Your task to perform on an android device: open app "Life360: Find Family & Friends" Image 0: 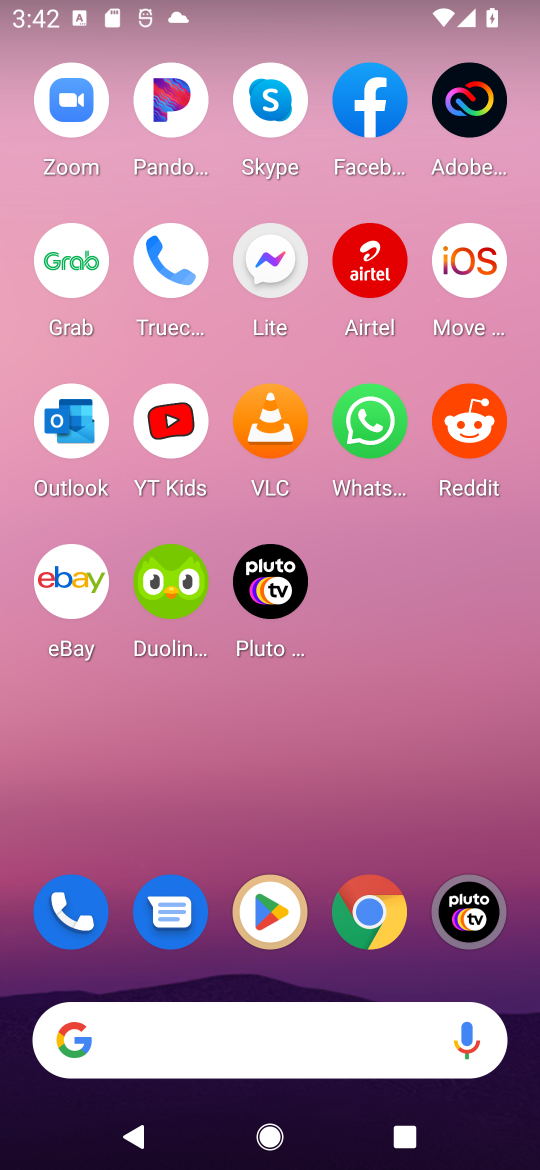
Step 0: press home button
Your task to perform on an android device: open app "Life360: Find Family & Friends" Image 1: 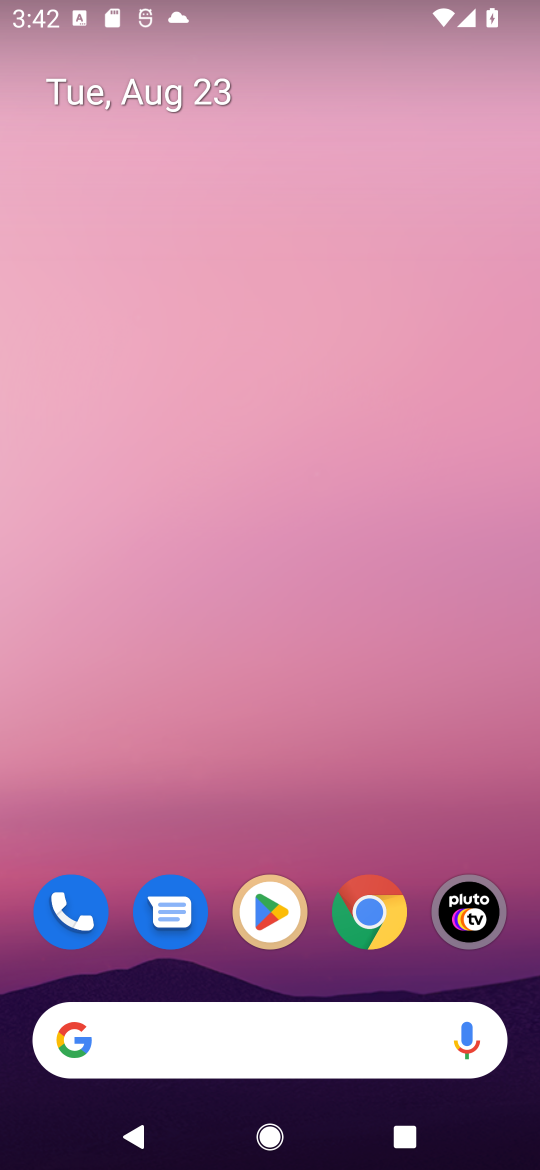
Step 1: drag from (217, 1010) to (271, 248)
Your task to perform on an android device: open app "Life360: Find Family & Friends" Image 2: 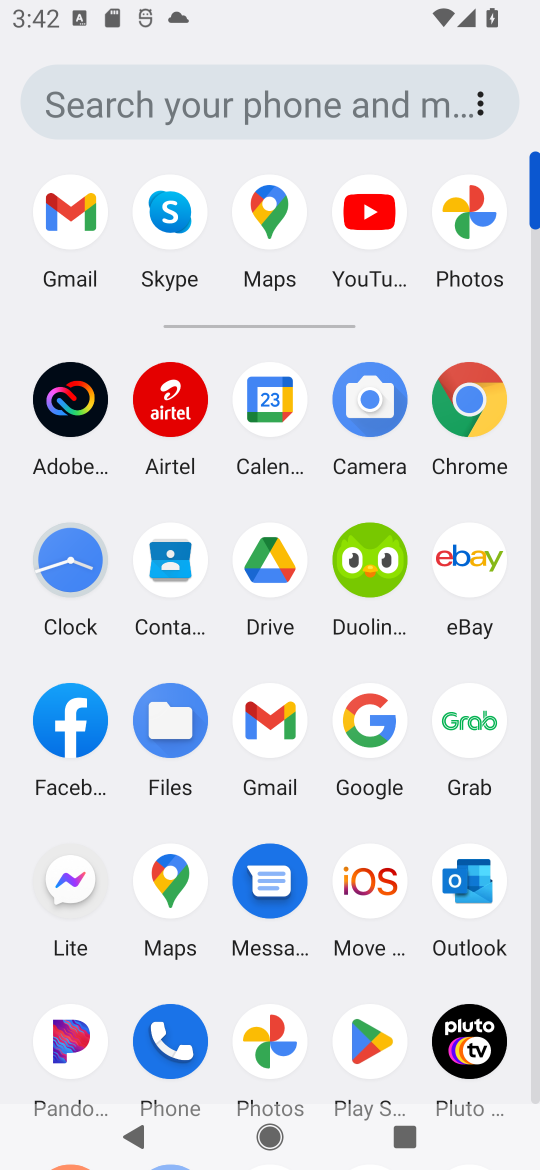
Step 2: click (370, 1041)
Your task to perform on an android device: open app "Life360: Find Family & Friends" Image 3: 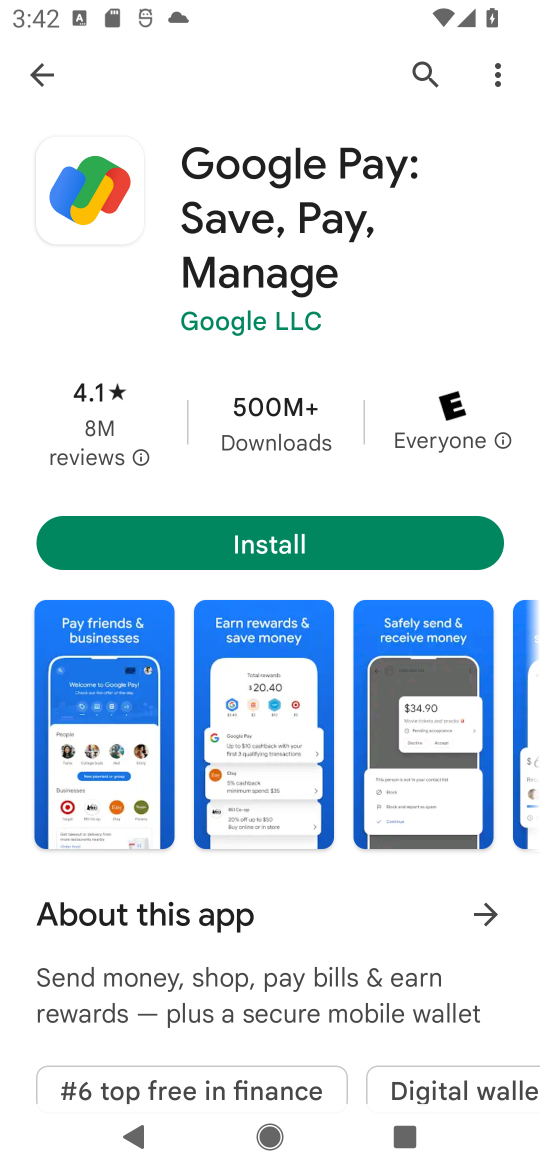
Step 3: press home button
Your task to perform on an android device: open app "Life360: Find Family & Friends" Image 4: 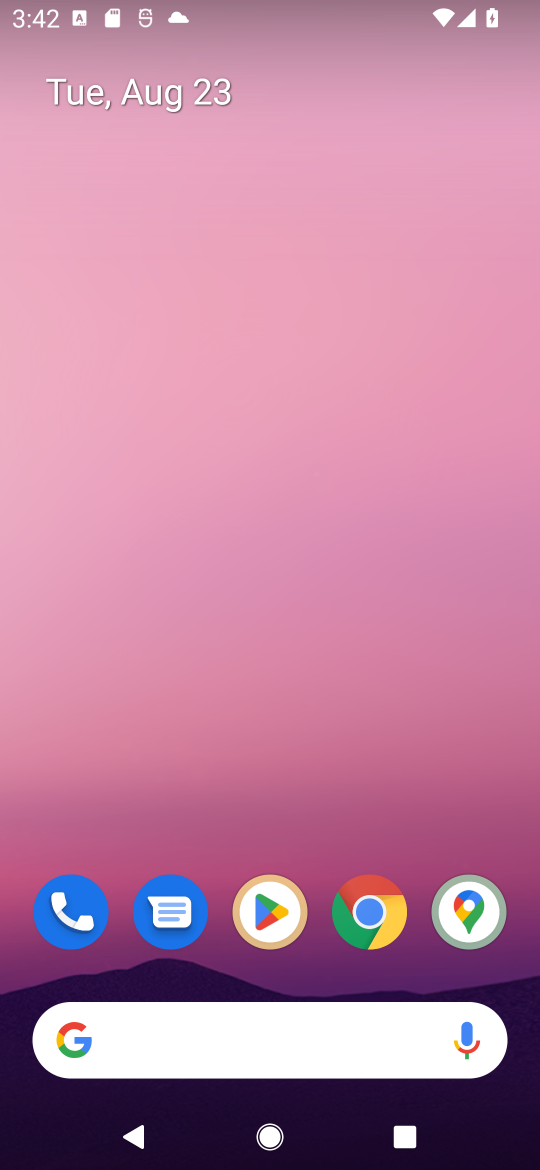
Step 4: drag from (251, 1003) to (343, 90)
Your task to perform on an android device: open app "Life360: Find Family & Friends" Image 5: 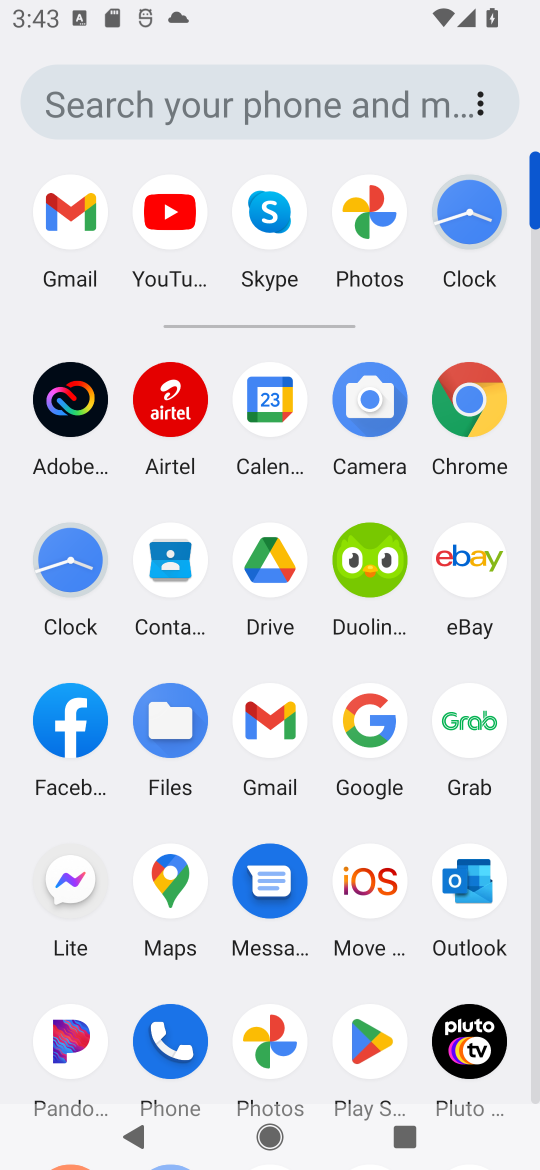
Step 5: click (363, 1038)
Your task to perform on an android device: open app "Life360: Find Family & Friends" Image 6: 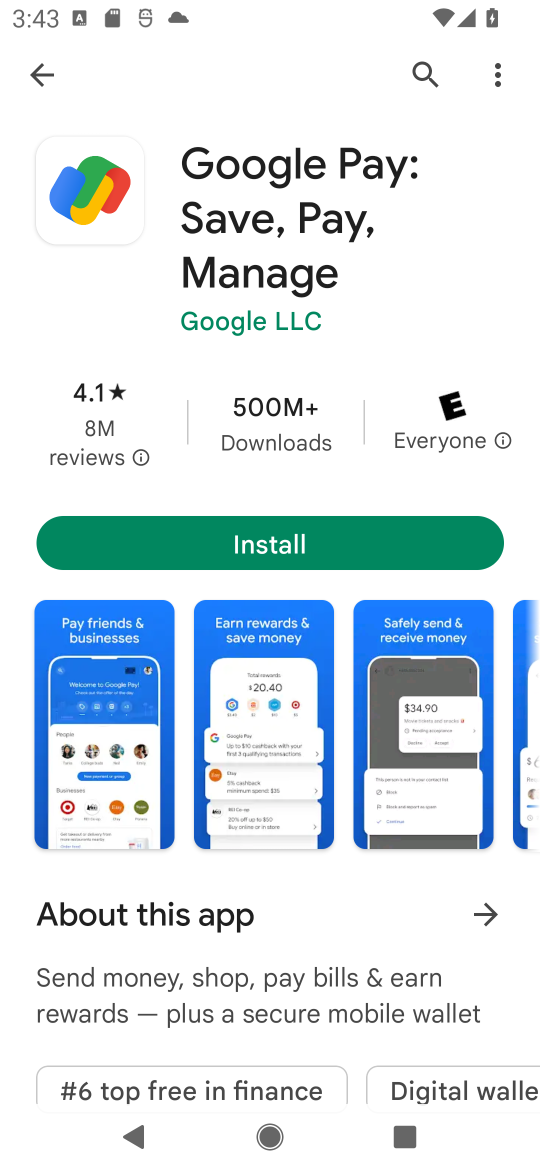
Step 6: press back button
Your task to perform on an android device: open app "Life360: Find Family & Friends" Image 7: 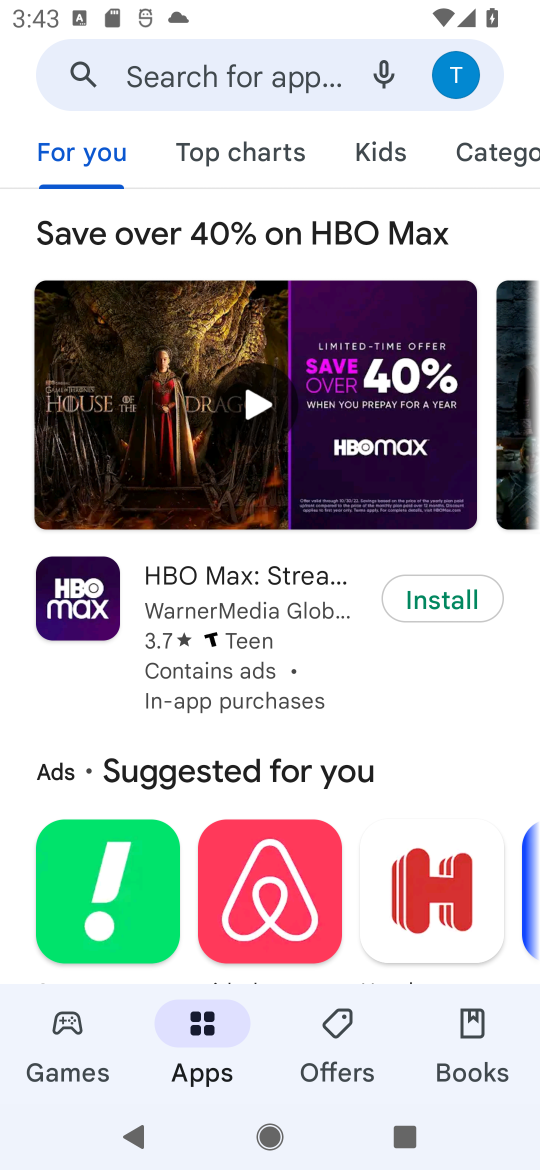
Step 7: click (181, 76)
Your task to perform on an android device: open app "Life360: Find Family & Friends" Image 8: 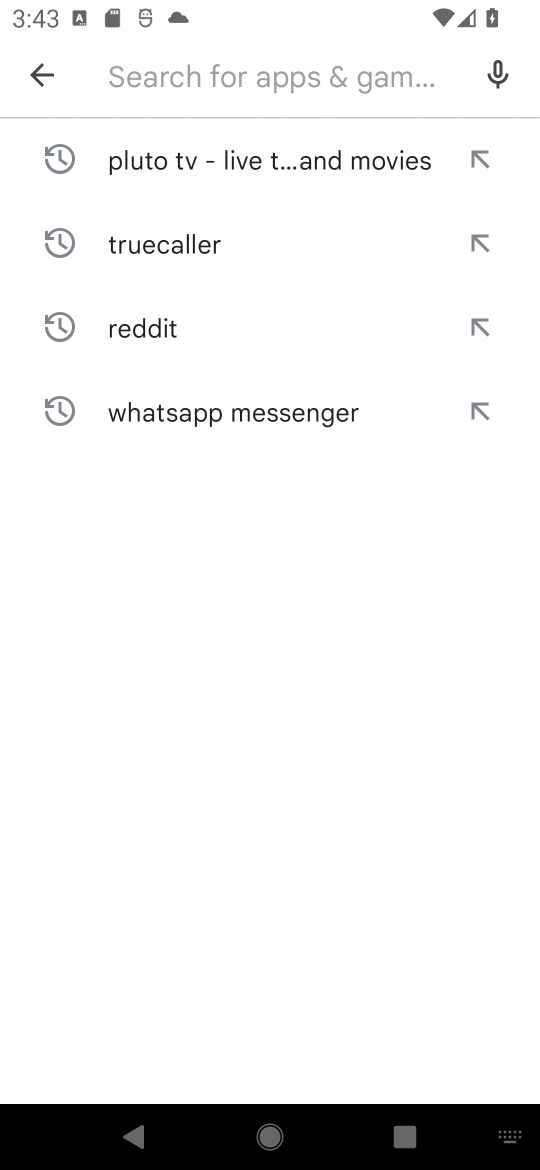
Step 8: type "Life360: Find Family & Friends"
Your task to perform on an android device: open app "Life360: Find Family & Friends" Image 9: 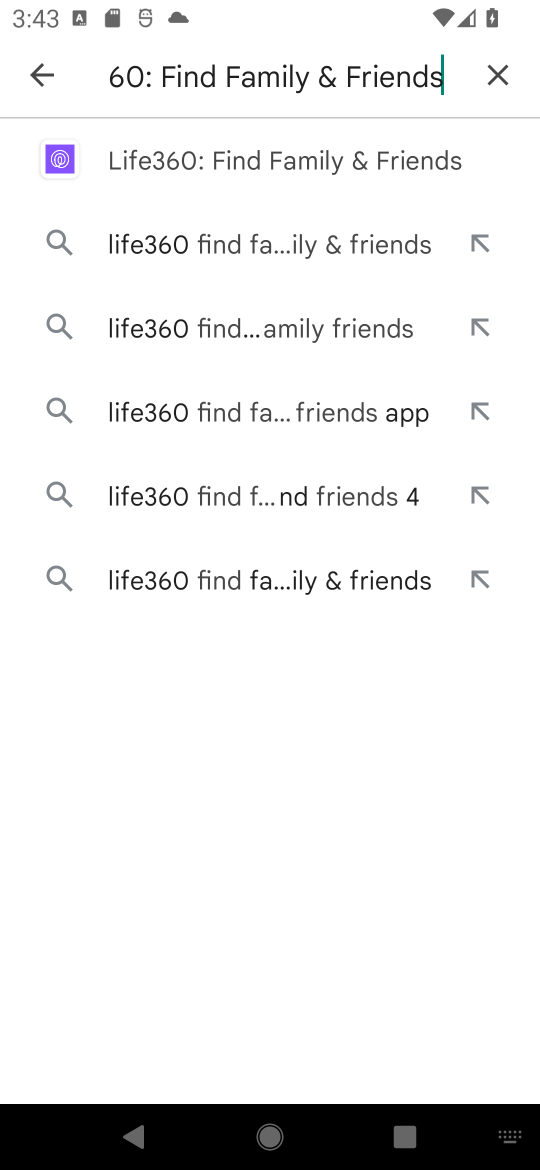
Step 9: type ""
Your task to perform on an android device: open app "Life360: Find Family & Friends" Image 10: 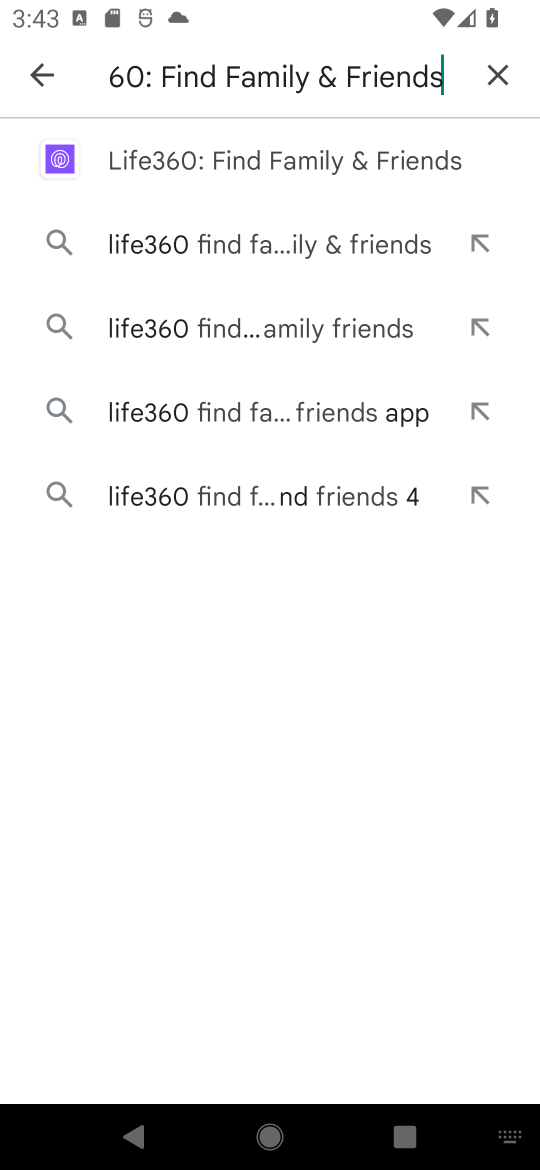
Step 10: click (212, 157)
Your task to perform on an android device: open app "Life360: Find Family & Friends" Image 11: 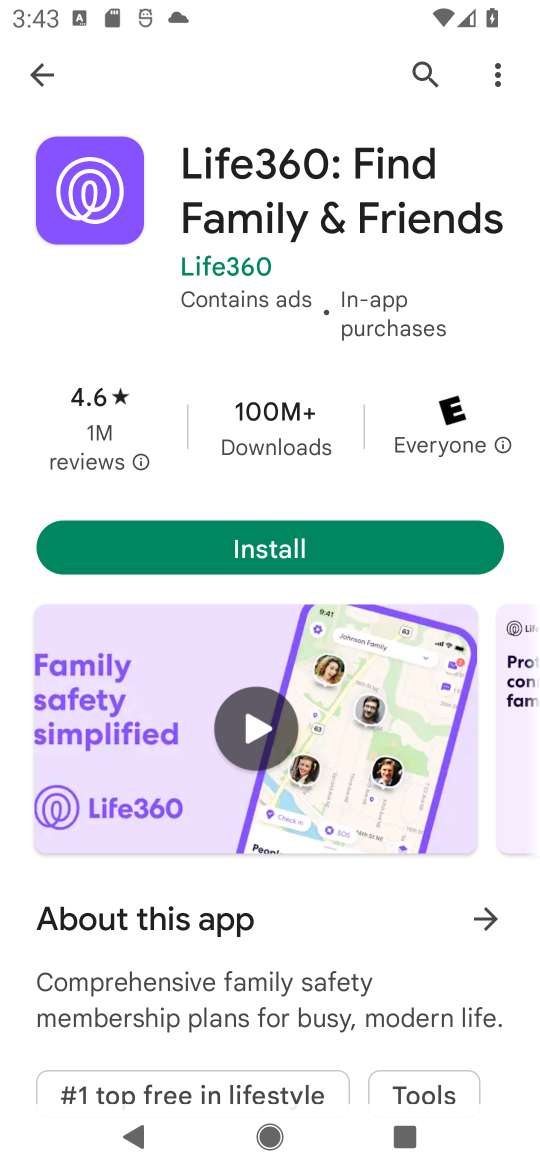
Step 11: task complete